Your task to perform on an android device: Open sound settings Image 0: 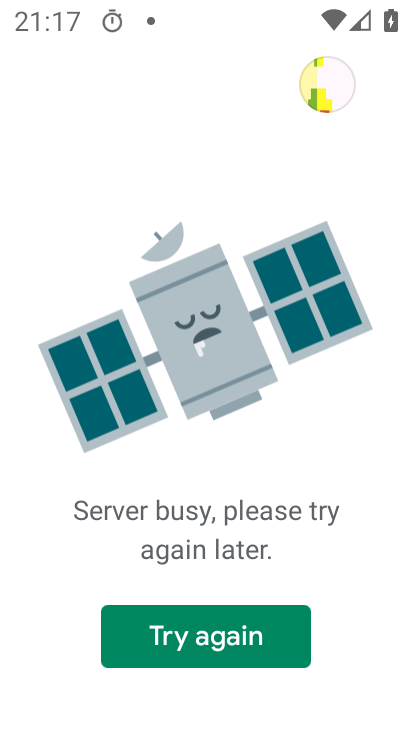
Step 0: press home button
Your task to perform on an android device: Open sound settings Image 1: 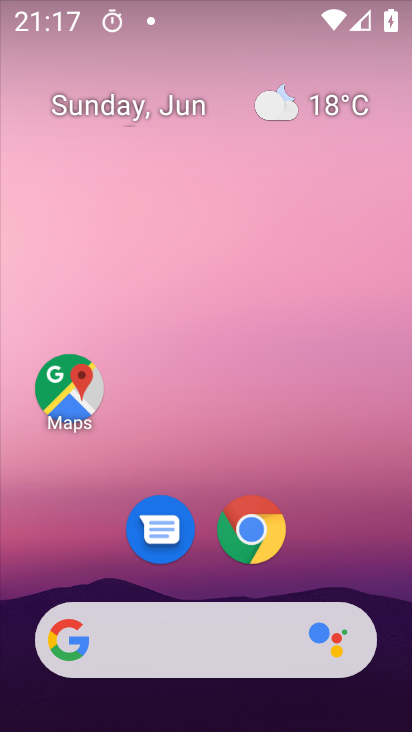
Step 1: drag from (342, 554) to (333, 42)
Your task to perform on an android device: Open sound settings Image 2: 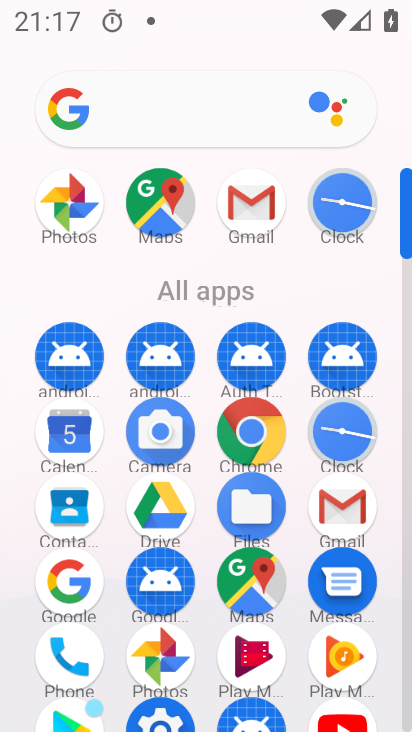
Step 2: drag from (301, 535) to (330, 96)
Your task to perform on an android device: Open sound settings Image 3: 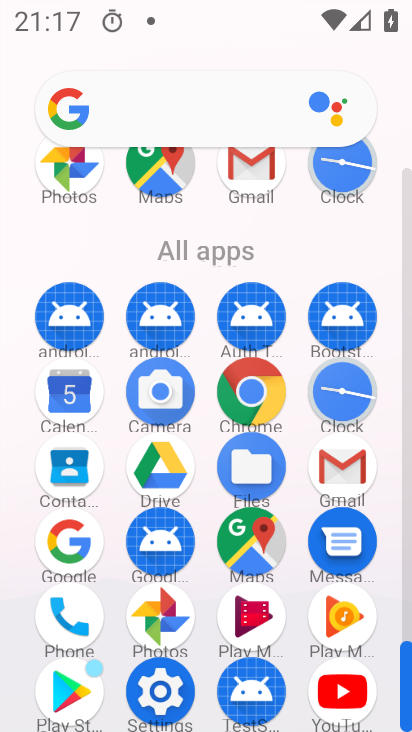
Step 3: click (155, 692)
Your task to perform on an android device: Open sound settings Image 4: 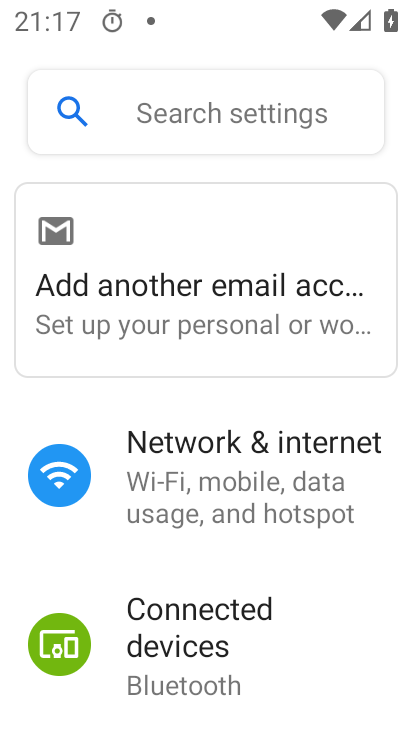
Step 4: drag from (232, 642) to (360, 158)
Your task to perform on an android device: Open sound settings Image 5: 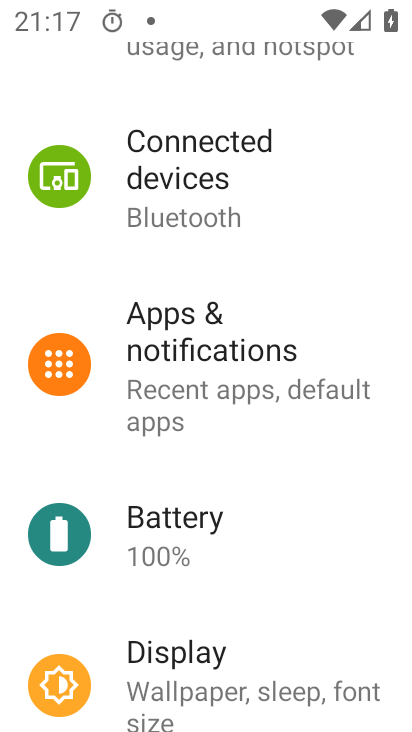
Step 5: drag from (237, 661) to (253, 213)
Your task to perform on an android device: Open sound settings Image 6: 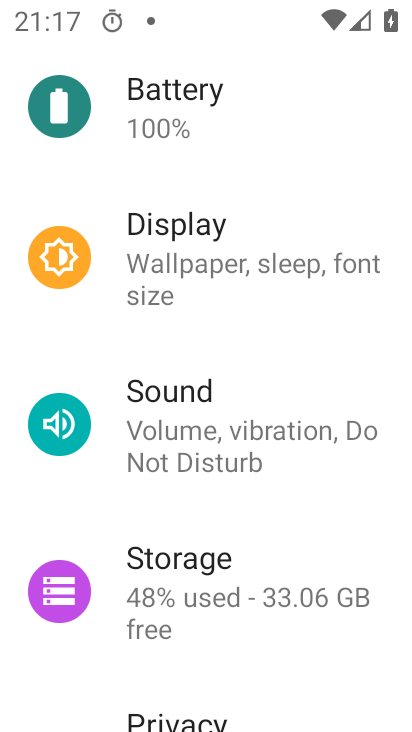
Step 6: click (208, 427)
Your task to perform on an android device: Open sound settings Image 7: 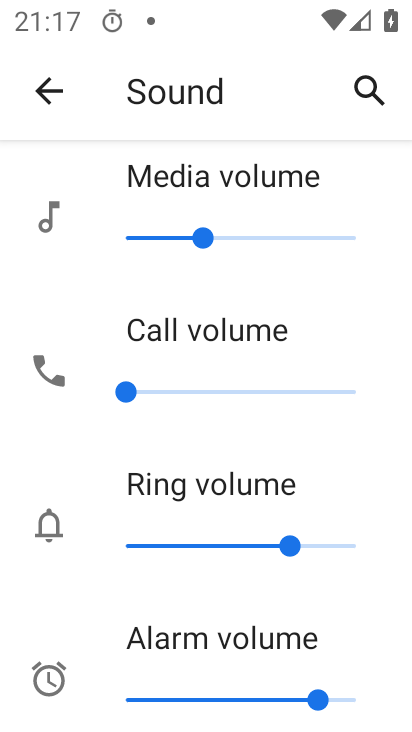
Step 7: task complete